Your task to perform on an android device: empty trash in the gmail app Image 0: 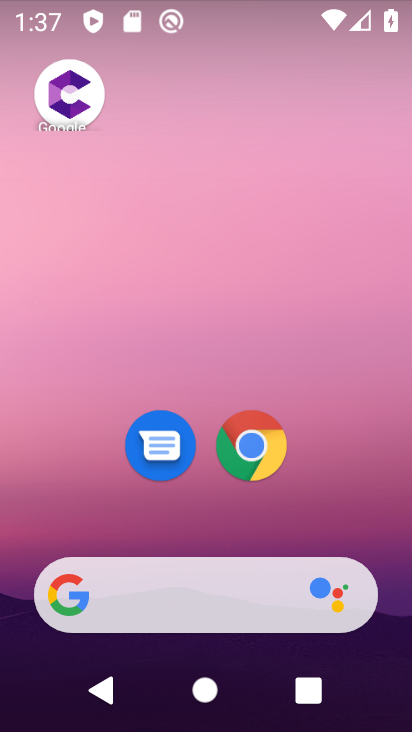
Step 0: drag from (191, 506) to (156, 116)
Your task to perform on an android device: empty trash in the gmail app Image 1: 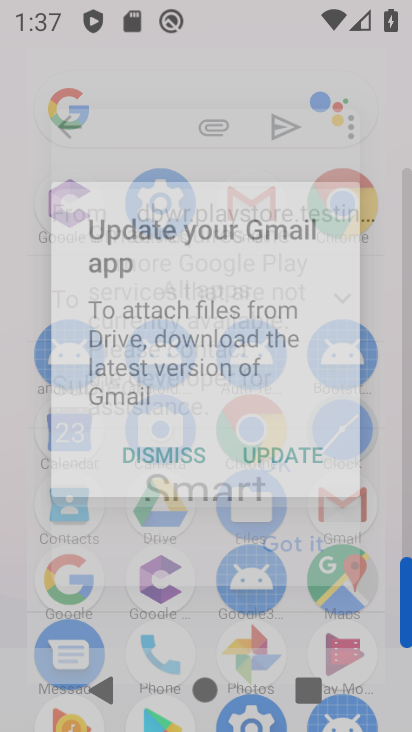
Step 1: click (247, 199)
Your task to perform on an android device: empty trash in the gmail app Image 2: 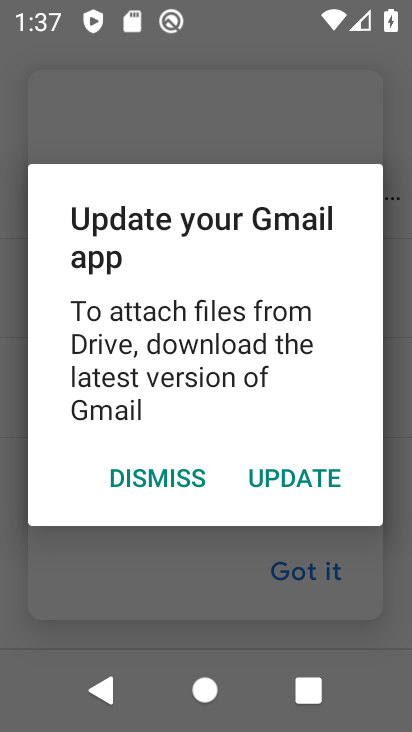
Step 2: click (160, 479)
Your task to perform on an android device: empty trash in the gmail app Image 3: 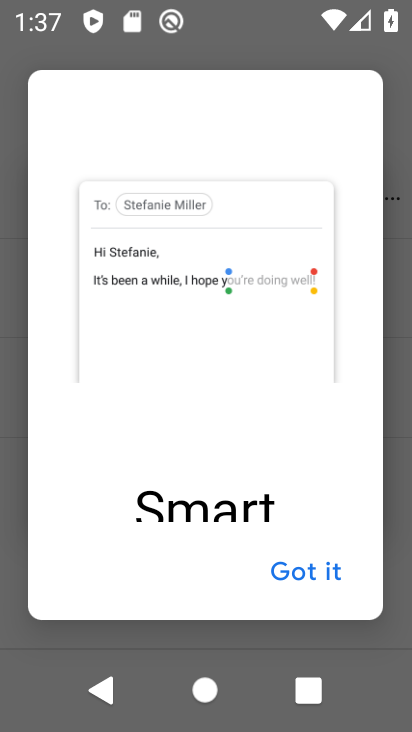
Step 3: click (287, 566)
Your task to perform on an android device: empty trash in the gmail app Image 4: 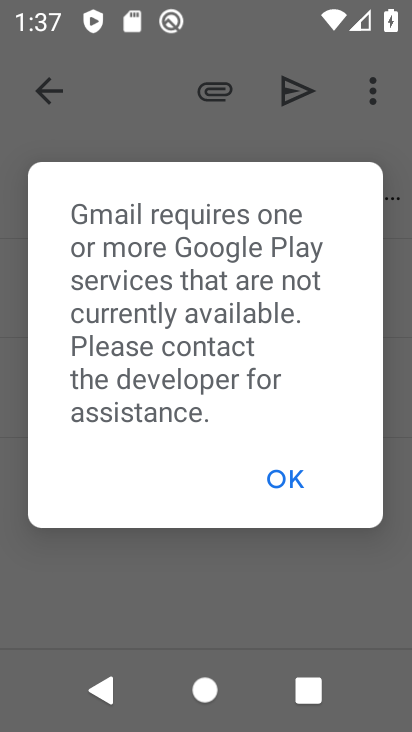
Step 4: click (267, 496)
Your task to perform on an android device: empty trash in the gmail app Image 5: 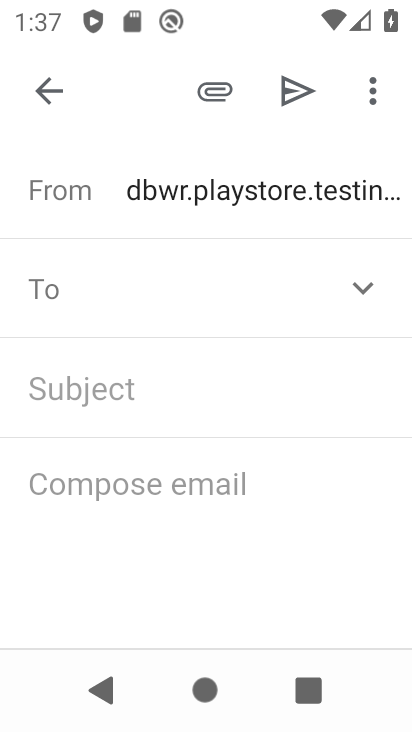
Step 5: press back button
Your task to perform on an android device: empty trash in the gmail app Image 6: 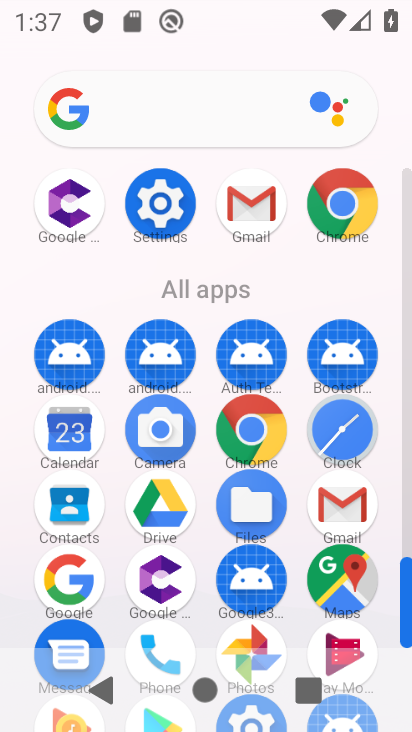
Step 6: click (256, 200)
Your task to perform on an android device: empty trash in the gmail app Image 7: 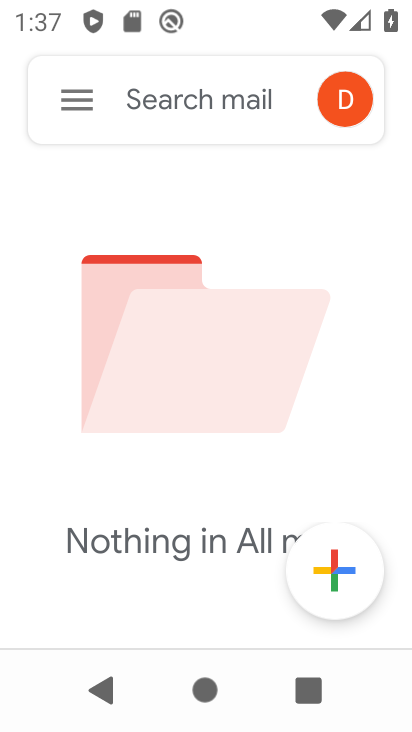
Step 7: click (81, 99)
Your task to perform on an android device: empty trash in the gmail app Image 8: 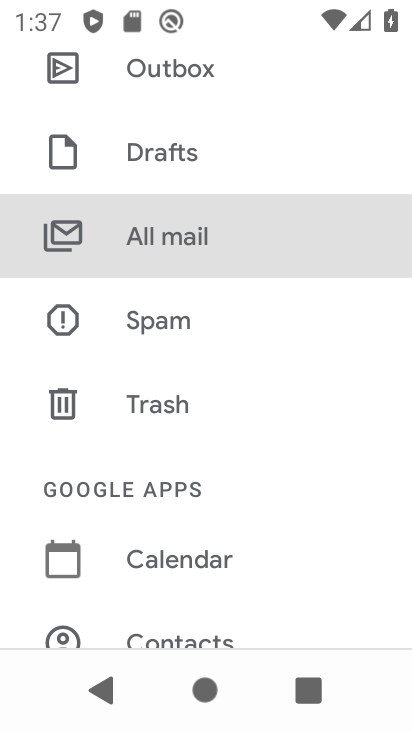
Step 8: click (157, 420)
Your task to perform on an android device: empty trash in the gmail app Image 9: 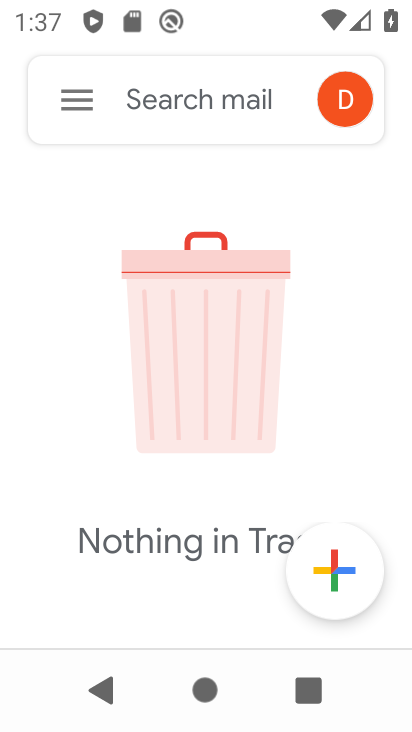
Step 9: task complete